Your task to perform on an android device: Open the web browser Image 0: 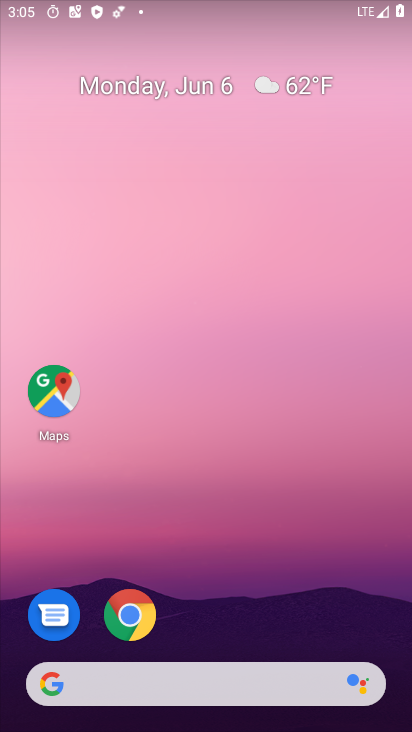
Step 0: drag from (165, 667) to (335, 178)
Your task to perform on an android device: Open the web browser Image 1: 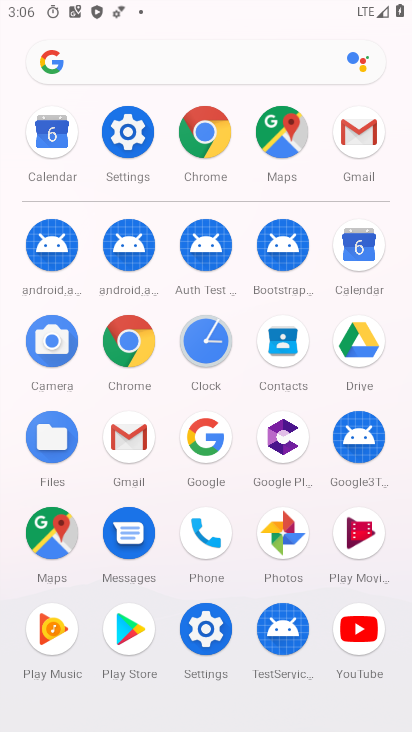
Step 1: click (149, 352)
Your task to perform on an android device: Open the web browser Image 2: 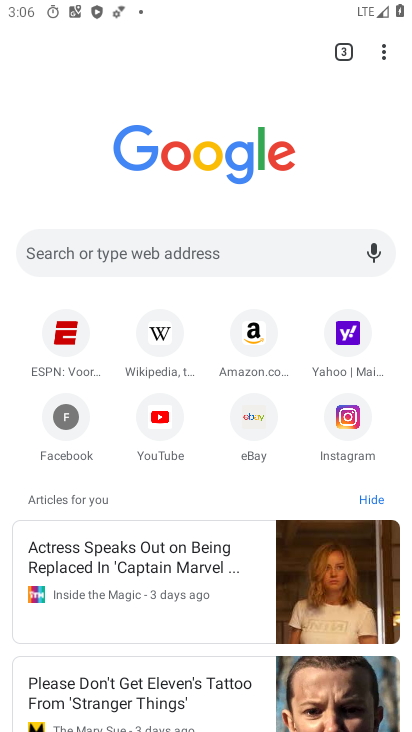
Step 2: task complete